Your task to perform on an android device: change the clock display to analog Image 0: 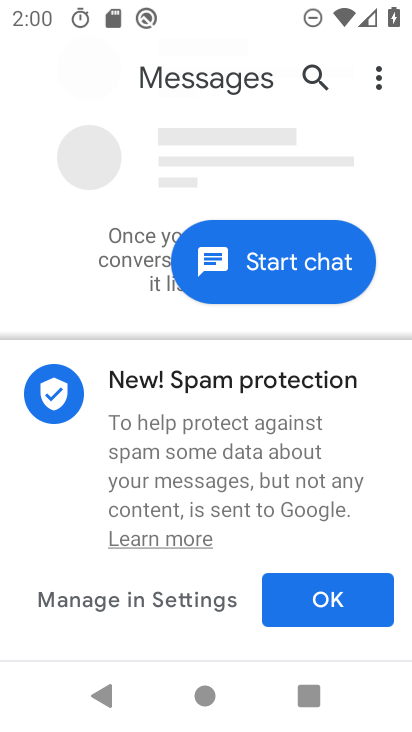
Step 0: press home button
Your task to perform on an android device: change the clock display to analog Image 1: 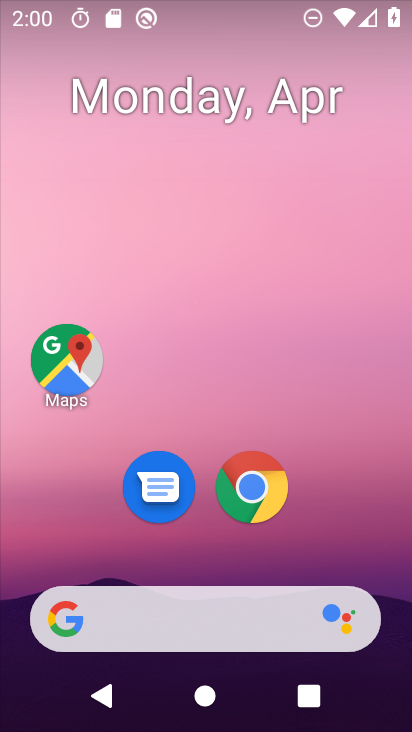
Step 1: drag from (297, 649) to (279, 346)
Your task to perform on an android device: change the clock display to analog Image 2: 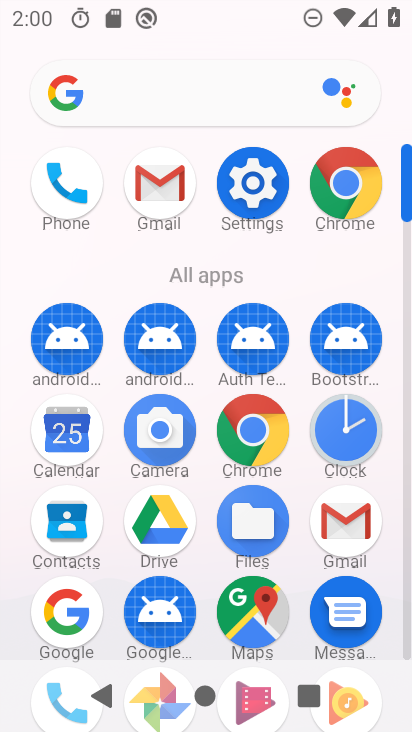
Step 2: click (344, 419)
Your task to perform on an android device: change the clock display to analog Image 3: 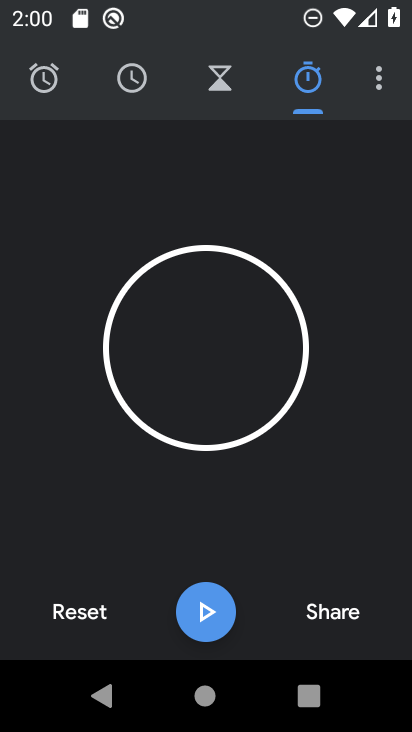
Step 3: click (381, 93)
Your task to perform on an android device: change the clock display to analog Image 4: 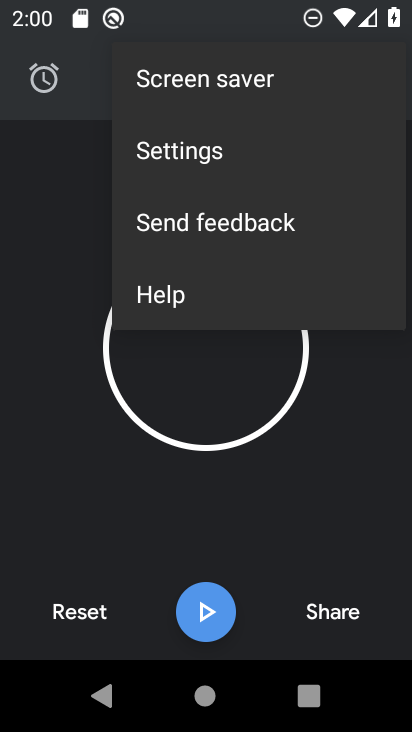
Step 4: click (227, 137)
Your task to perform on an android device: change the clock display to analog Image 5: 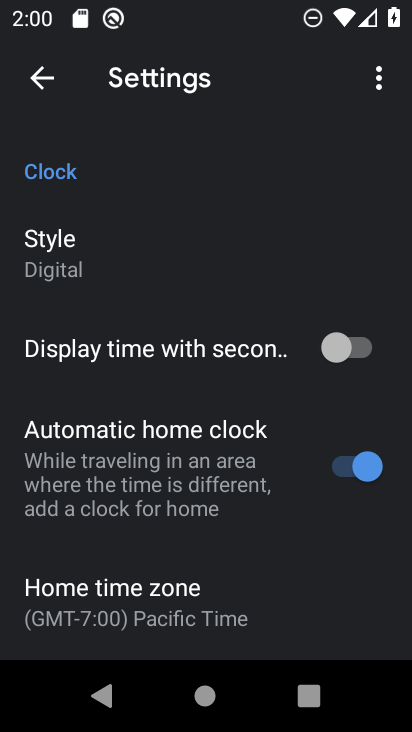
Step 5: click (96, 264)
Your task to perform on an android device: change the clock display to analog Image 6: 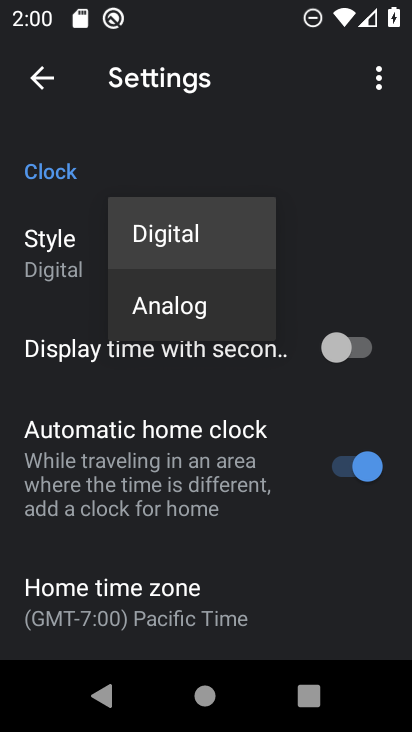
Step 6: click (165, 309)
Your task to perform on an android device: change the clock display to analog Image 7: 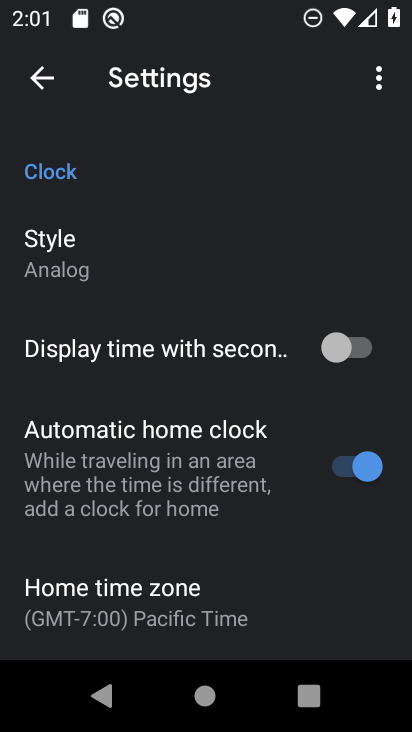
Step 7: task complete